Your task to perform on an android device: Open Google Chrome and open the bookmarks view Image 0: 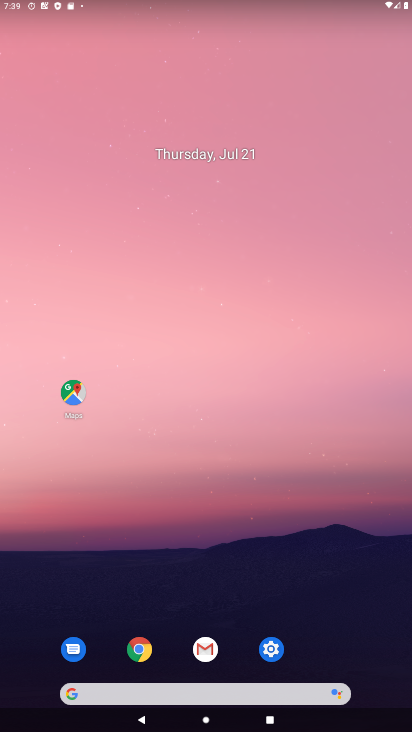
Step 0: click (140, 655)
Your task to perform on an android device: Open Google Chrome and open the bookmarks view Image 1: 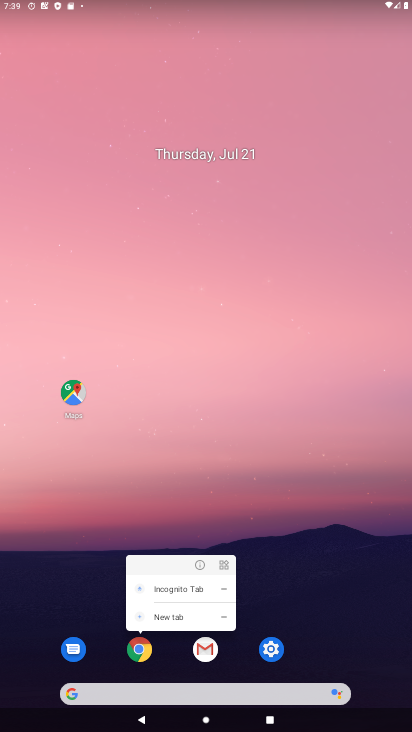
Step 1: click (137, 655)
Your task to perform on an android device: Open Google Chrome and open the bookmarks view Image 2: 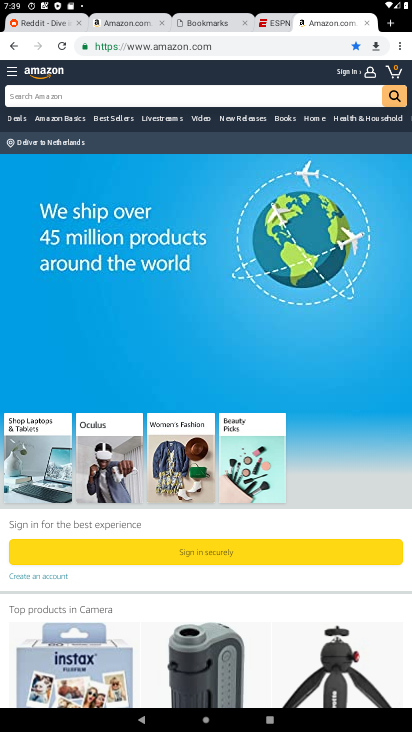
Step 2: click (401, 47)
Your task to perform on an android device: Open Google Chrome and open the bookmarks view Image 3: 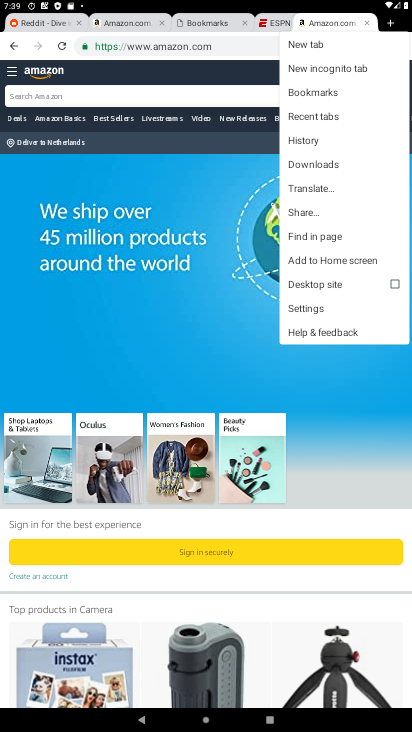
Step 3: click (322, 95)
Your task to perform on an android device: Open Google Chrome and open the bookmarks view Image 4: 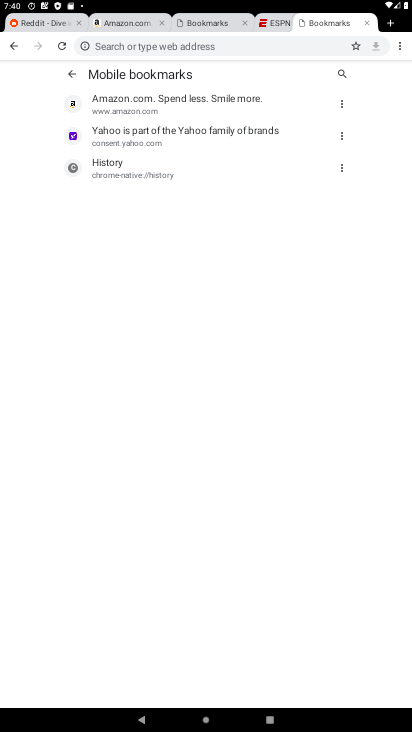
Step 4: task complete